Your task to perform on an android device: Turn off the flashlight Image 0: 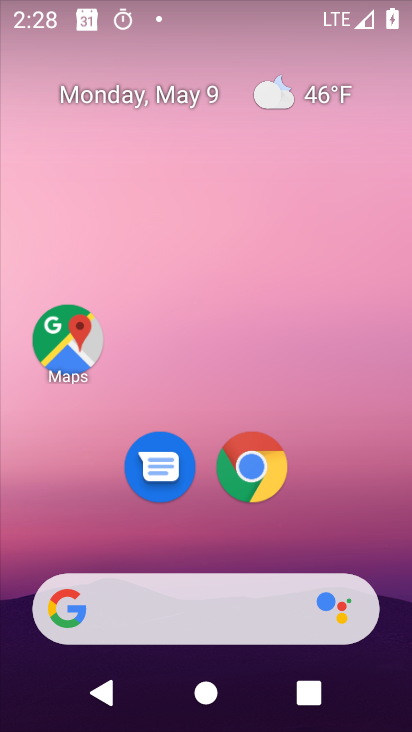
Step 0: drag from (202, 9) to (275, 597)
Your task to perform on an android device: Turn off the flashlight Image 1: 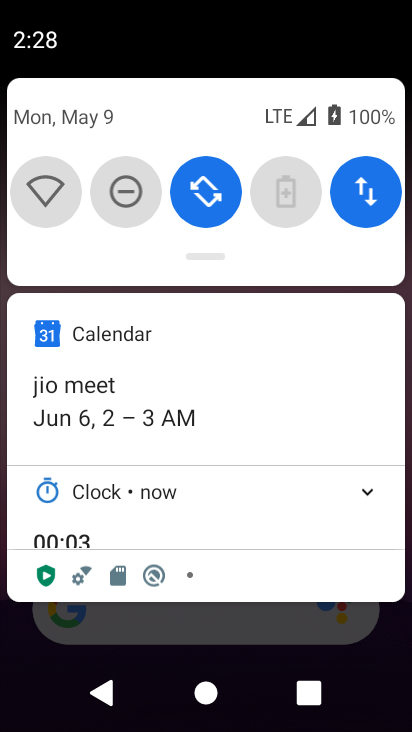
Step 1: task complete